Your task to perform on an android device: Go to Google Image 0: 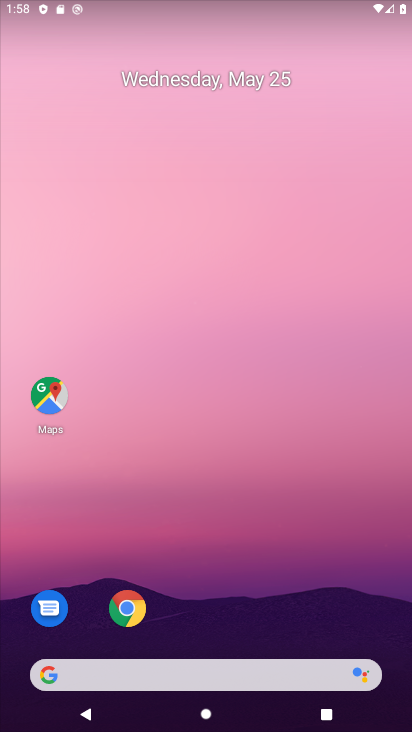
Step 0: click (127, 610)
Your task to perform on an android device: Go to Google Image 1: 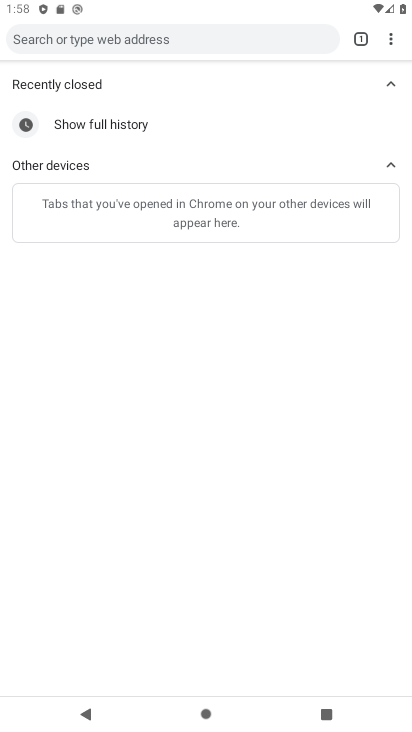
Step 1: task complete